Your task to perform on an android device: Set the phone to "Do not disturb". Image 0: 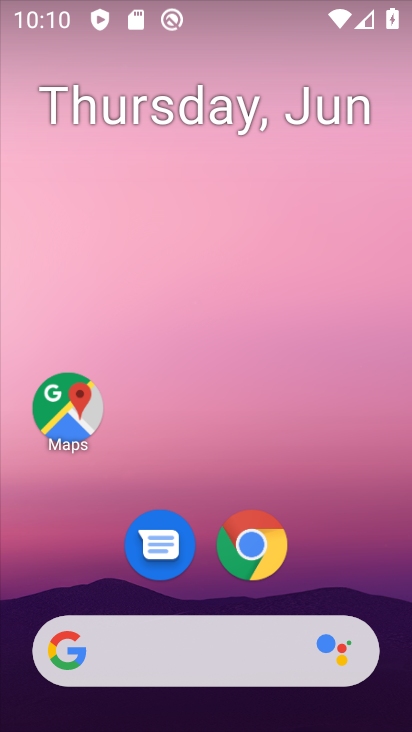
Step 0: drag from (184, 596) to (229, 7)
Your task to perform on an android device: Set the phone to "Do not disturb". Image 1: 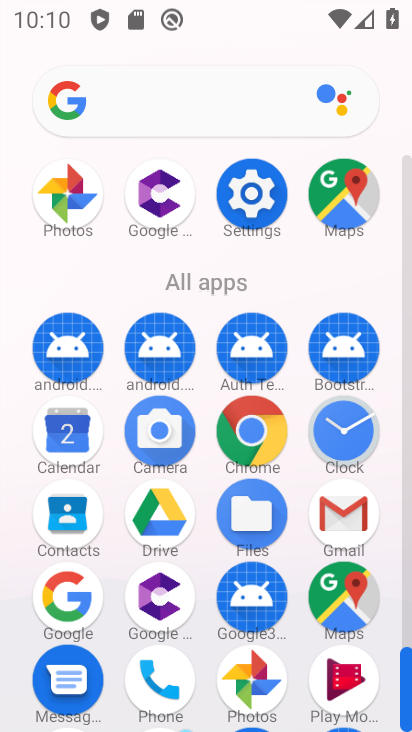
Step 1: click (245, 212)
Your task to perform on an android device: Set the phone to "Do not disturb". Image 2: 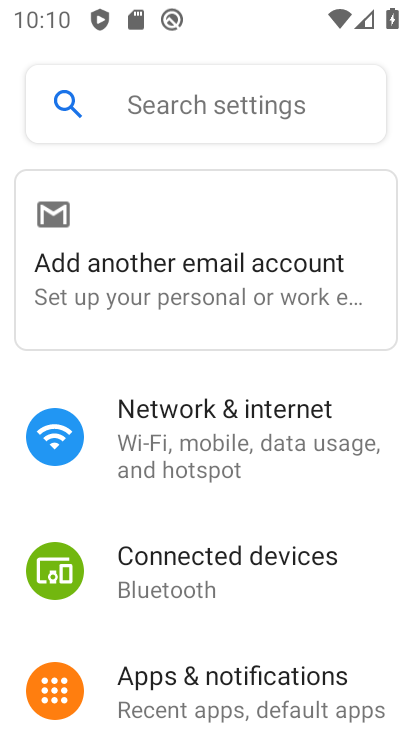
Step 2: drag from (240, 623) to (288, 320)
Your task to perform on an android device: Set the phone to "Do not disturb". Image 3: 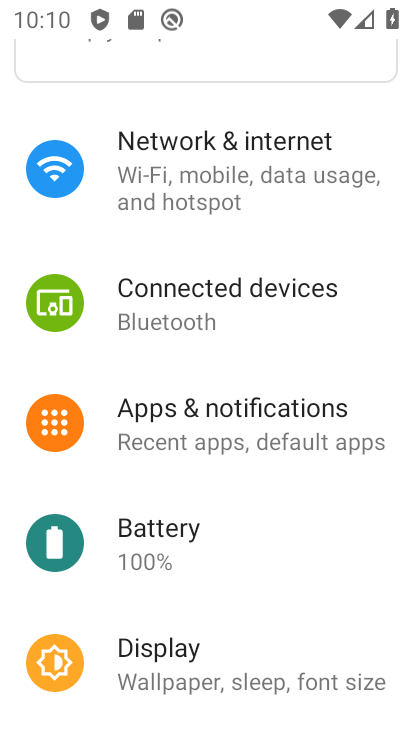
Step 3: drag from (182, 659) to (256, 288)
Your task to perform on an android device: Set the phone to "Do not disturb". Image 4: 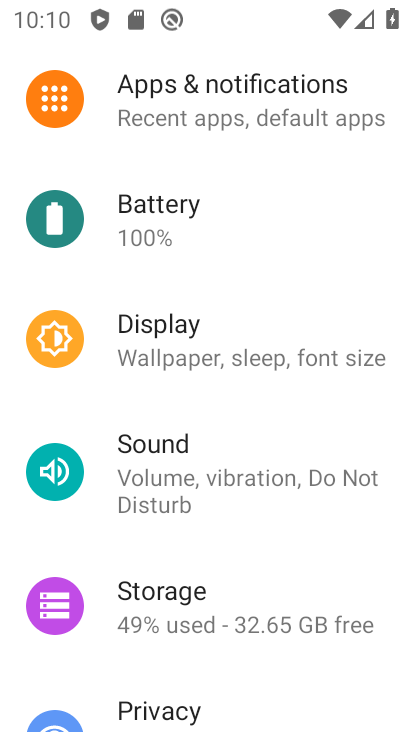
Step 4: click (175, 467)
Your task to perform on an android device: Set the phone to "Do not disturb". Image 5: 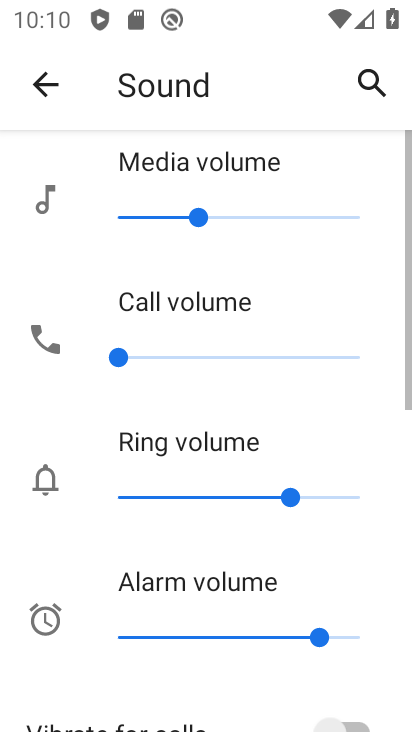
Step 5: drag from (206, 595) to (258, 243)
Your task to perform on an android device: Set the phone to "Do not disturb". Image 6: 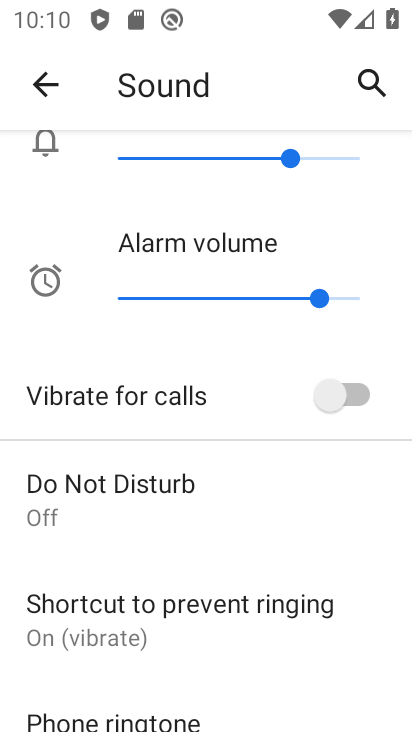
Step 6: click (151, 511)
Your task to perform on an android device: Set the phone to "Do not disturb". Image 7: 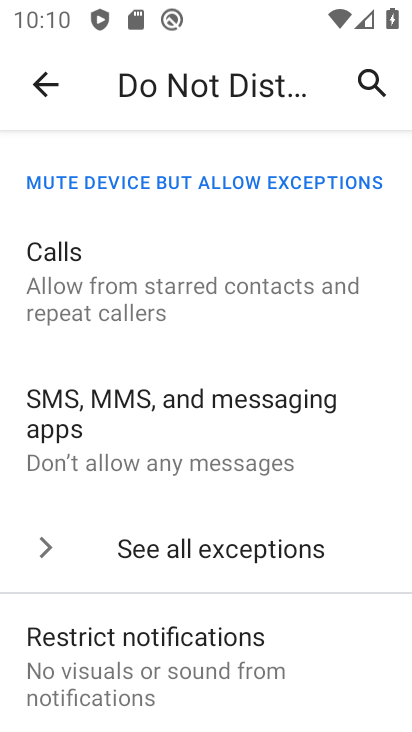
Step 7: drag from (201, 590) to (252, 227)
Your task to perform on an android device: Set the phone to "Do not disturb". Image 8: 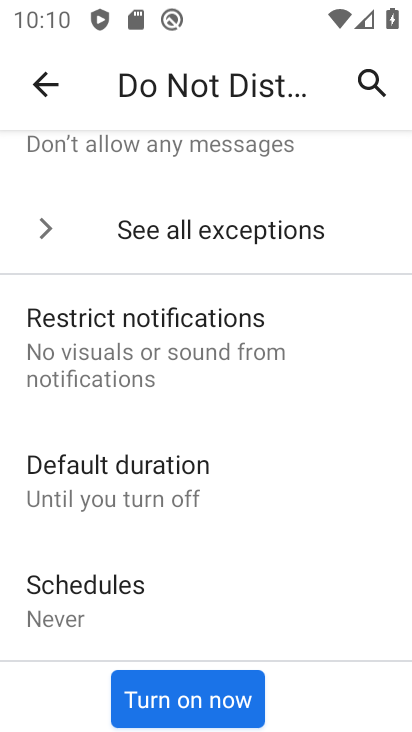
Step 8: drag from (194, 607) to (239, 317)
Your task to perform on an android device: Set the phone to "Do not disturb". Image 9: 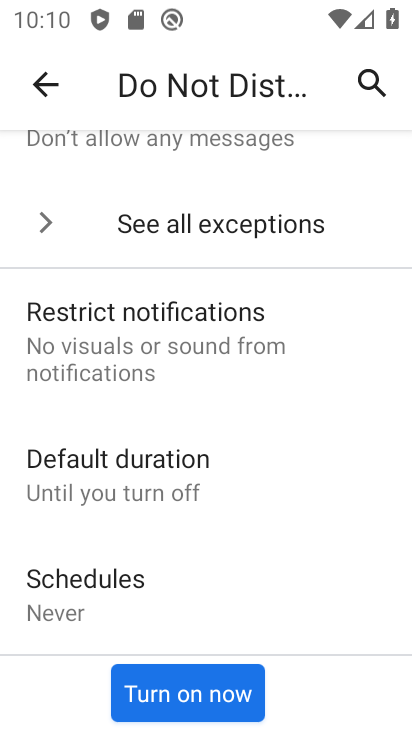
Step 9: click (194, 709)
Your task to perform on an android device: Set the phone to "Do not disturb". Image 10: 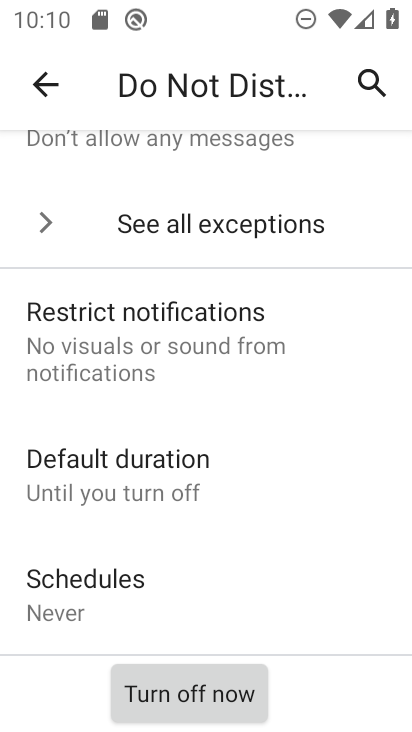
Step 10: task complete